Your task to perform on an android device: Open Amazon Image 0: 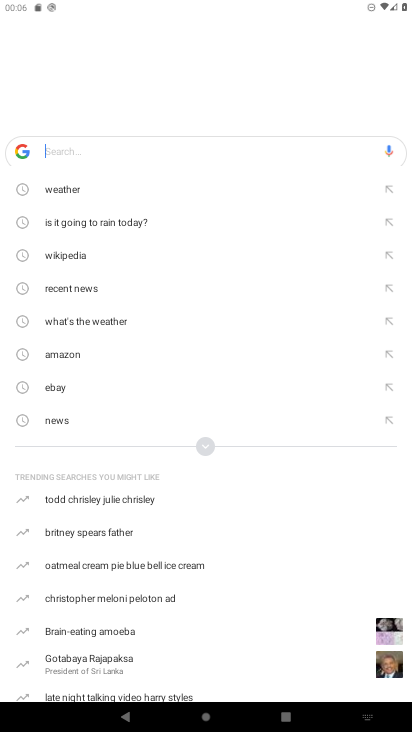
Step 0: press home button
Your task to perform on an android device: Open Amazon Image 1: 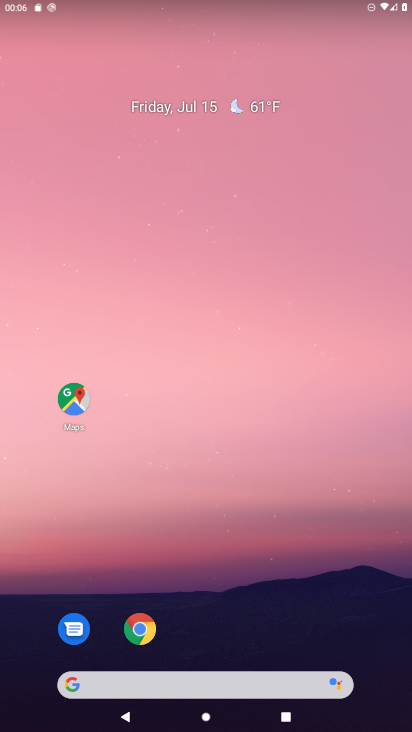
Step 1: click (138, 615)
Your task to perform on an android device: Open Amazon Image 2: 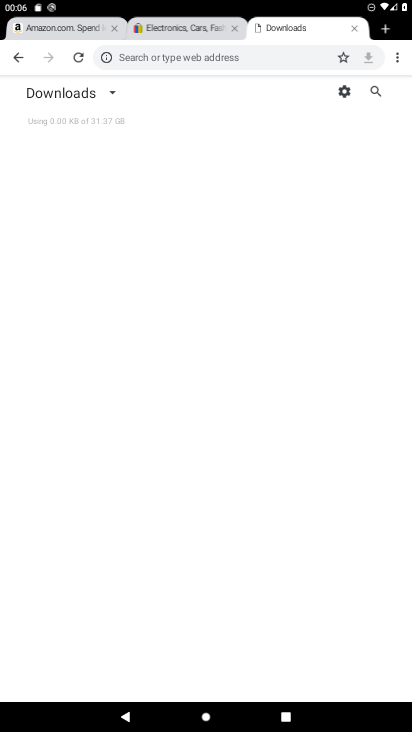
Step 2: click (59, 32)
Your task to perform on an android device: Open Amazon Image 3: 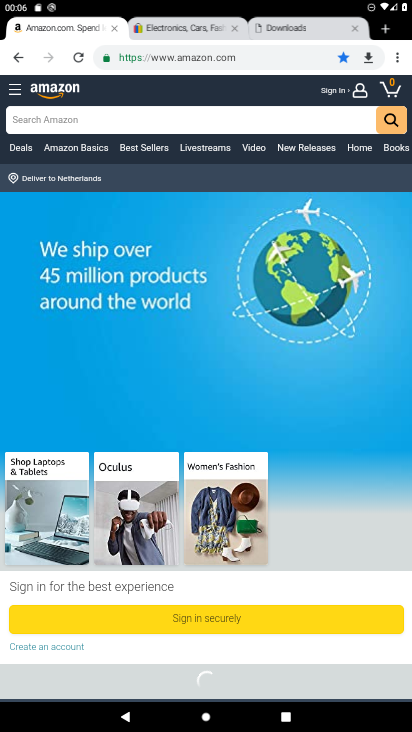
Step 3: task complete